Your task to perform on an android device: see sites visited before in the chrome app Image 0: 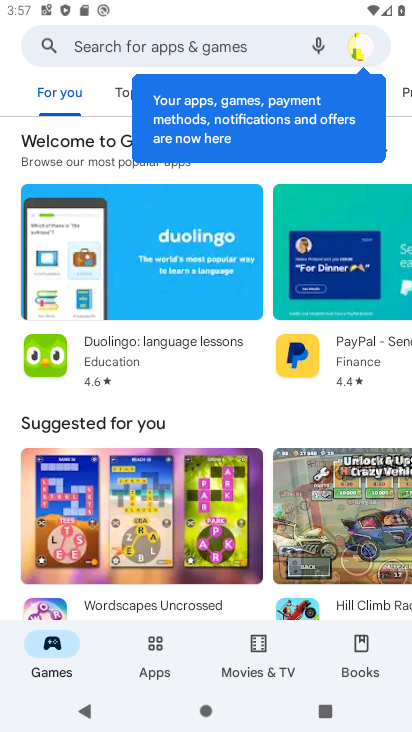
Step 0: press back button
Your task to perform on an android device: see sites visited before in the chrome app Image 1: 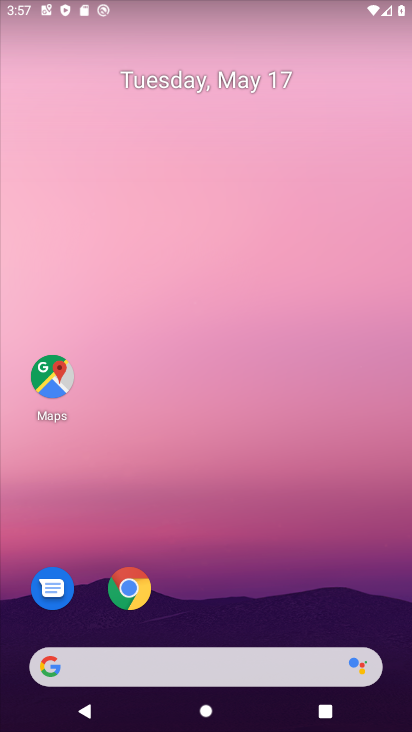
Step 1: click (129, 588)
Your task to perform on an android device: see sites visited before in the chrome app Image 2: 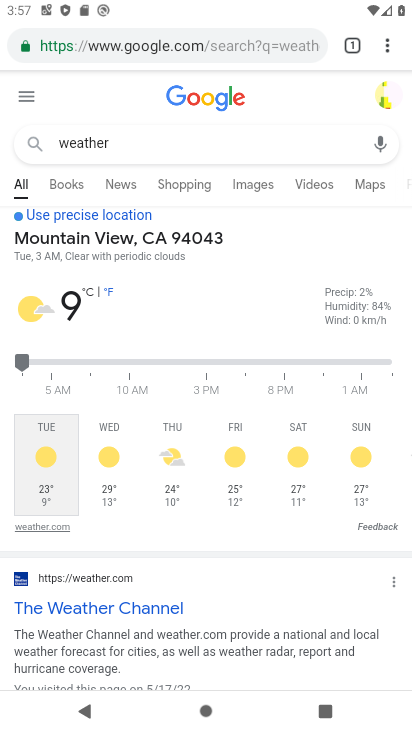
Step 2: click (388, 45)
Your task to perform on an android device: see sites visited before in the chrome app Image 3: 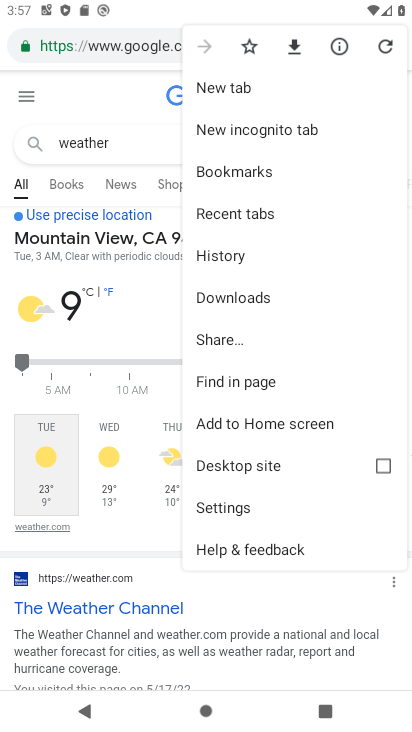
Step 3: click (258, 215)
Your task to perform on an android device: see sites visited before in the chrome app Image 4: 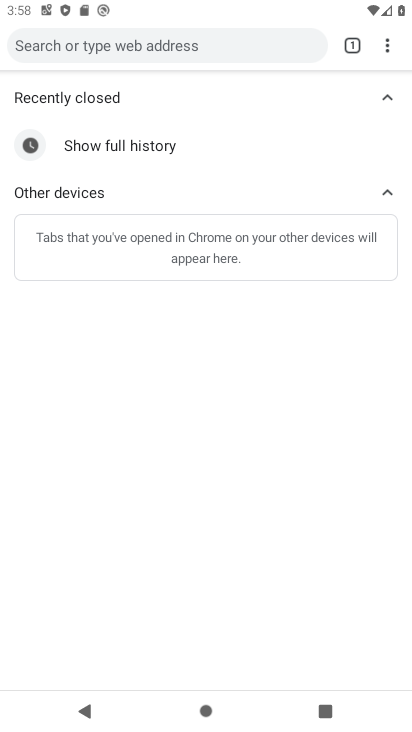
Step 4: task complete